Your task to perform on an android device: Is it going to rain this weekend? Image 0: 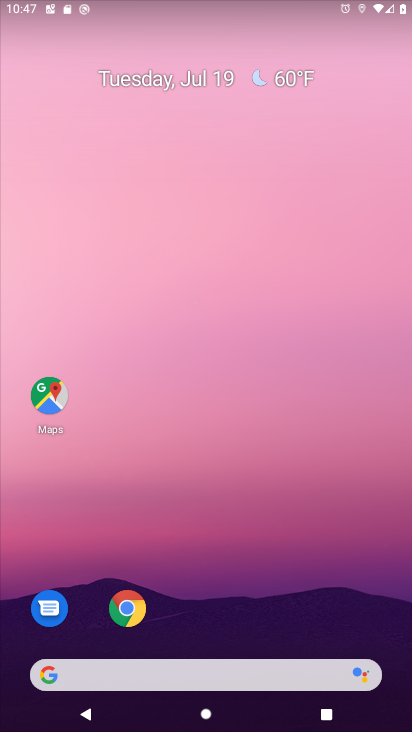
Step 0: click (211, 662)
Your task to perform on an android device: Is it going to rain this weekend? Image 1: 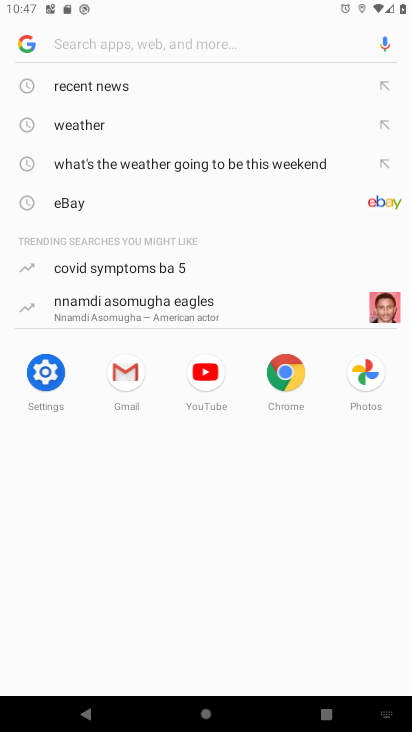
Step 1: click (102, 118)
Your task to perform on an android device: Is it going to rain this weekend? Image 2: 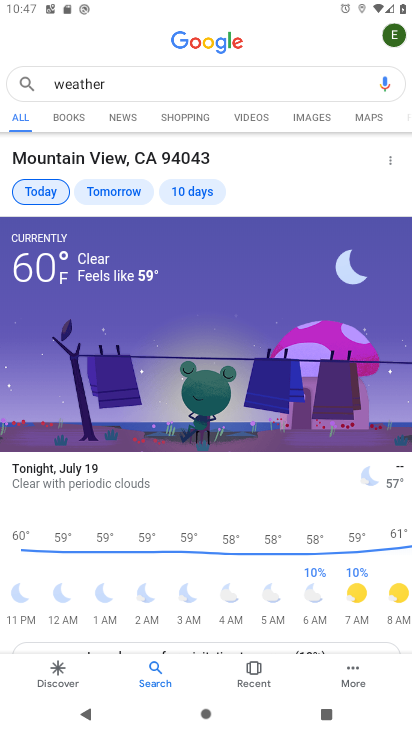
Step 2: click (191, 194)
Your task to perform on an android device: Is it going to rain this weekend? Image 3: 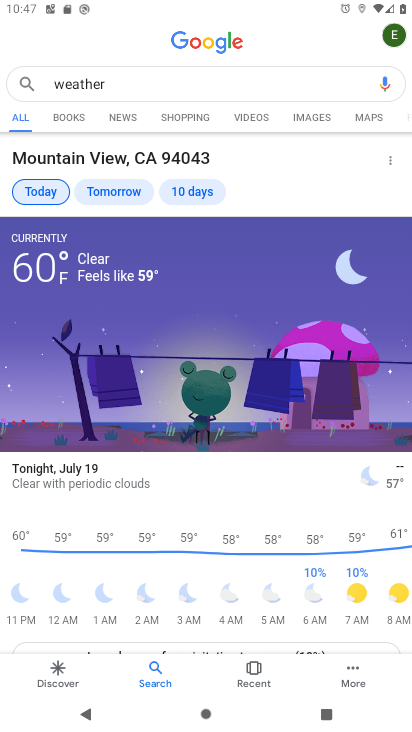
Step 3: click (191, 194)
Your task to perform on an android device: Is it going to rain this weekend? Image 4: 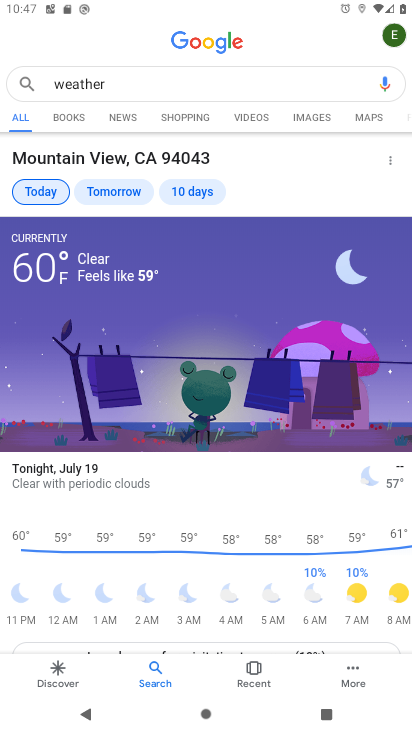
Step 4: click (191, 194)
Your task to perform on an android device: Is it going to rain this weekend? Image 5: 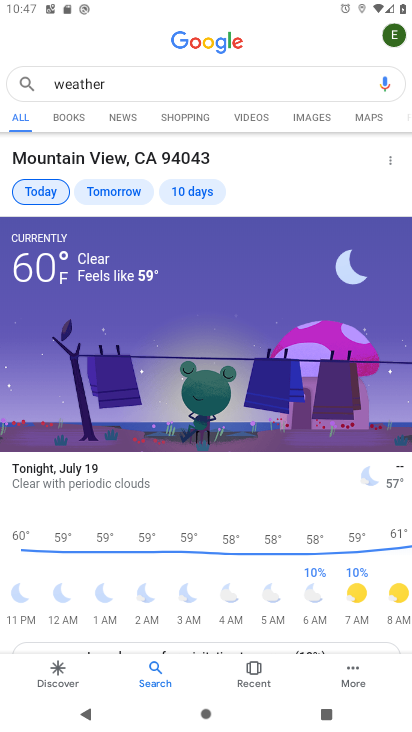
Step 5: click (191, 194)
Your task to perform on an android device: Is it going to rain this weekend? Image 6: 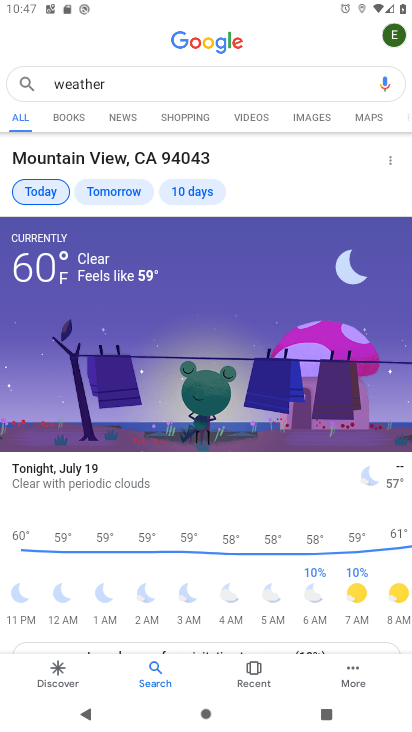
Step 6: click (191, 194)
Your task to perform on an android device: Is it going to rain this weekend? Image 7: 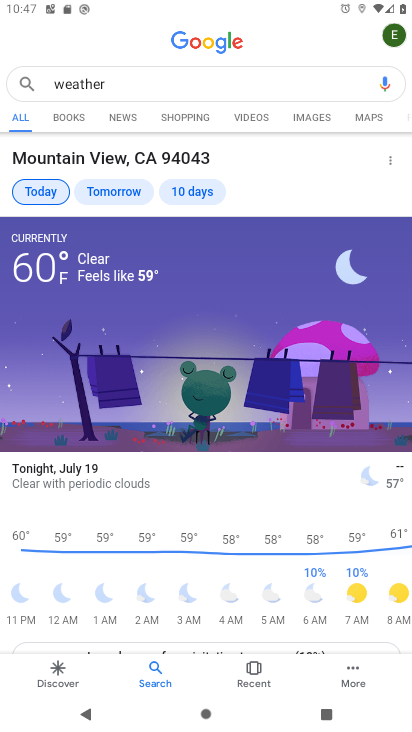
Step 7: click (191, 194)
Your task to perform on an android device: Is it going to rain this weekend? Image 8: 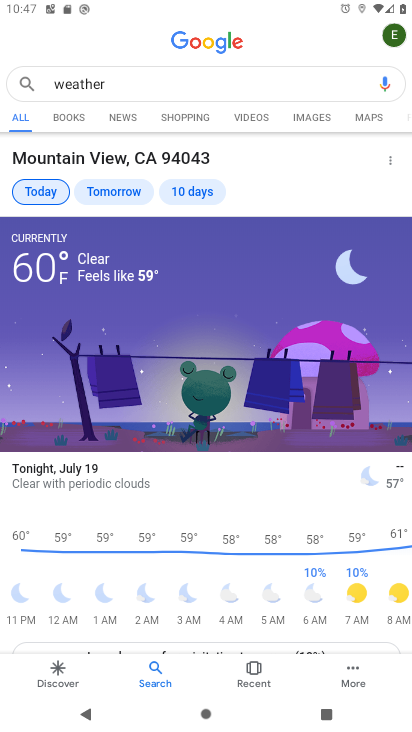
Step 8: click (191, 194)
Your task to perform on an android device: Is it going to rain this weekend? Image 9: 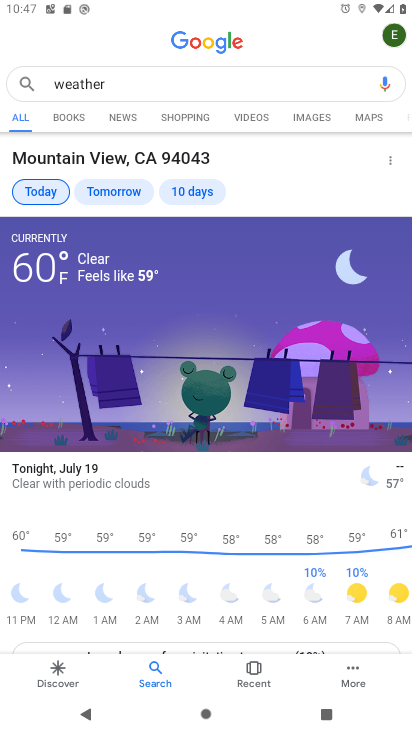
Step 9: click (191, 194)
Your task to perform on an android device: Is it going to rain this weekend? Image 10: 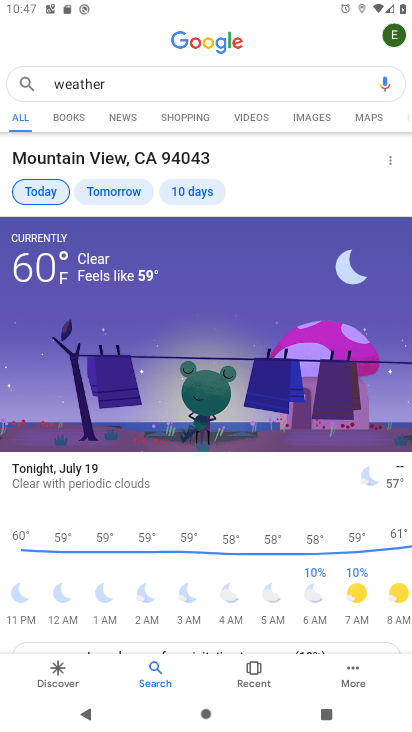
Step 10: click (191, 194)
Your task to perform on an android device: Is it going to rain this weekend? Image 11: 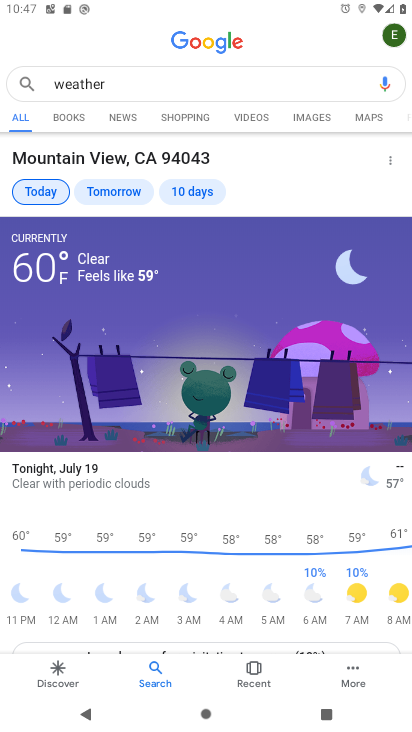
Step 11: click (191, 194)
Your task to perform on an android device: Is it going to rain this weekend? Image 12: 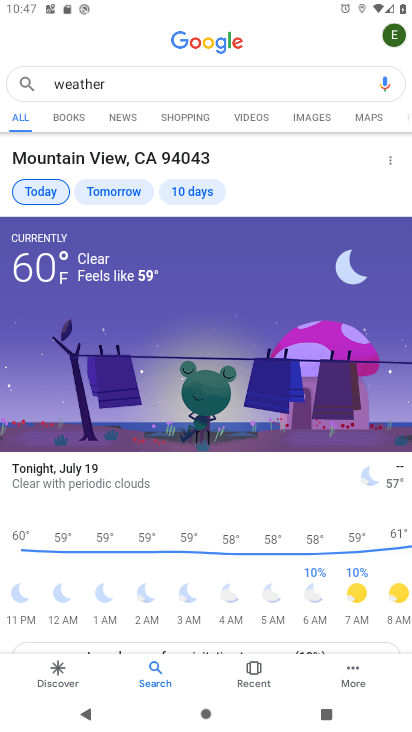
Step 12: task complete